Your task to perform on an android device: change alarm snooze length Image 0: 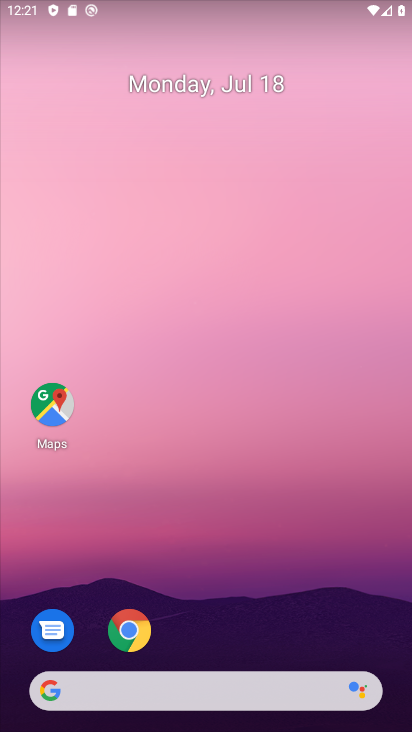
Step 0: click (182, 173)
Your task to perform on an android device: change alarm snooze length Image 1: 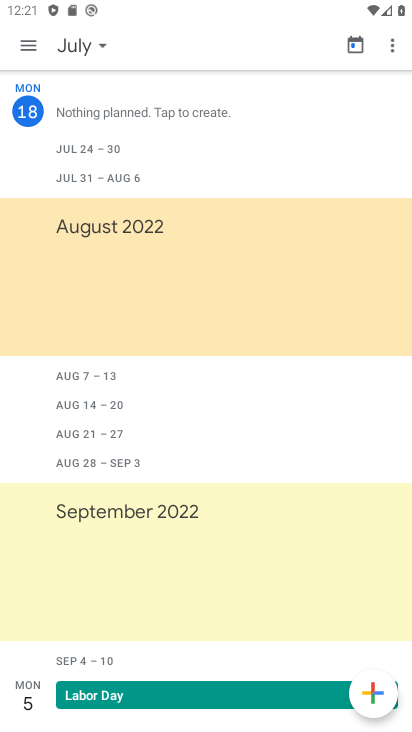
Step 1: press back button
Your task to perform on an android device: change alarm snooze length Image 2: 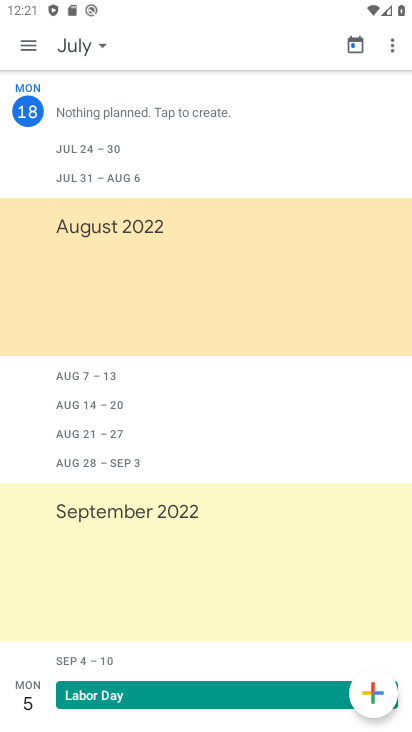
Step 2: press back button
Your task to perform on an android device: change alarm snooze length Image 3: 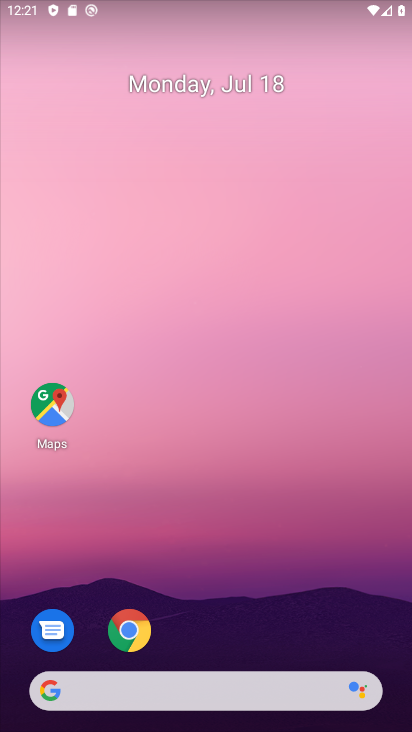
Step 3: drag from (281, 659) to (19, 97)
Your task to perform on an android device: change alarm snooze length Image 4: 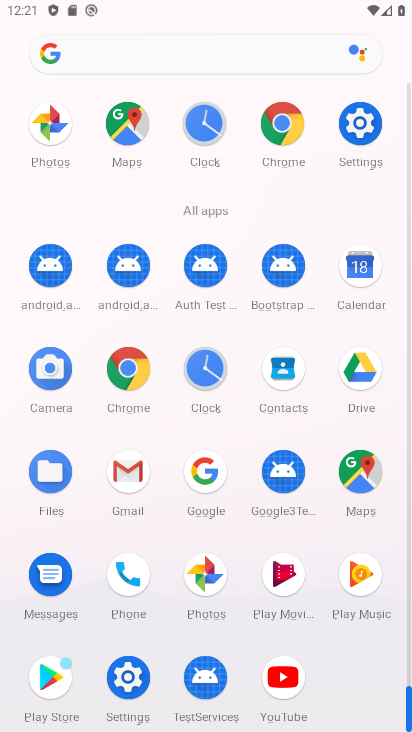
Step 4: click (206, 363)
Your task to perform on an android device: change alarm snooze length Image 5: 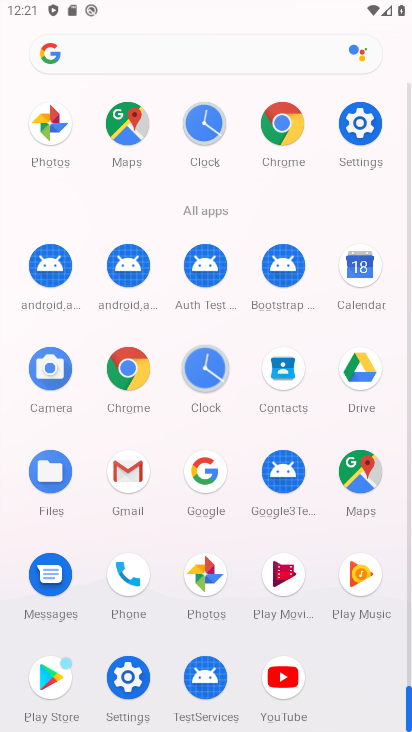
Step 5: click (207, 362)
Your task to perform on an android device: change alarm snooze length Image 6: 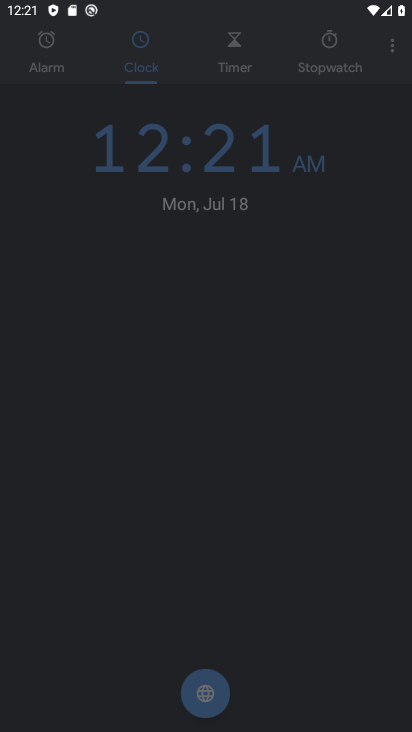
Step 6: click (207, 362)
Your task to perform on an android device: change alarm snooze length Image 7: 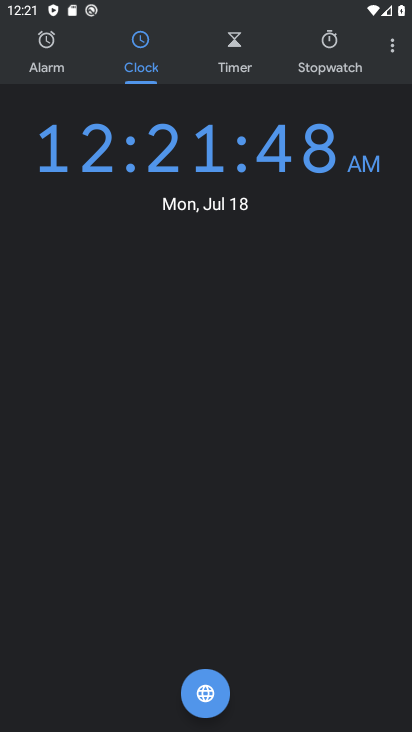
Step 7: click (213, 362)
Your task to perform on an android device: change alarm snooze length Image 8: 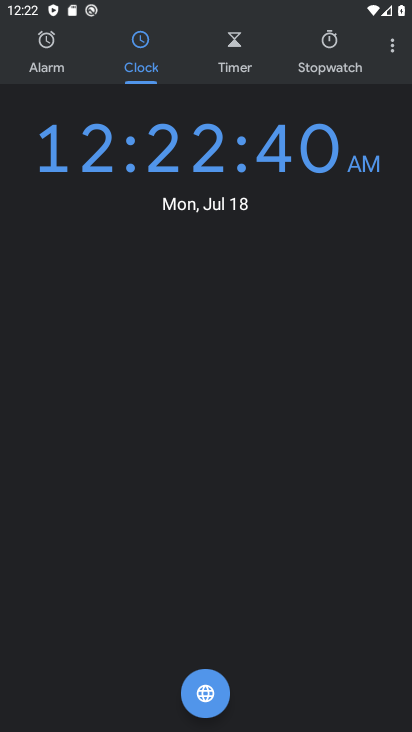
Step 8: click (382, 45)
Your task to perform on an android device: change alarm snooze length Image 9: 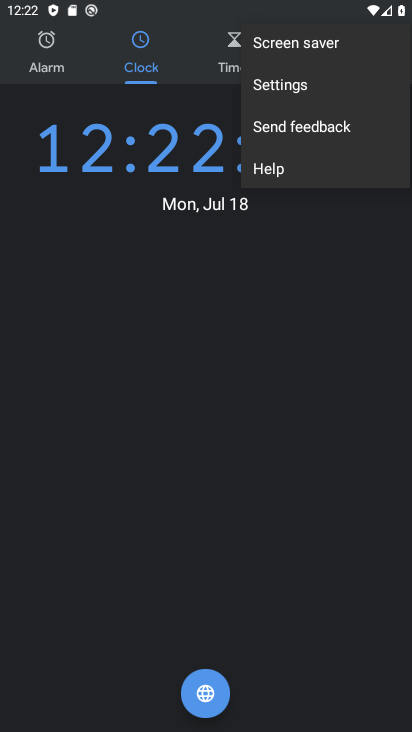
Step 9: click (388, 53)
Your task to perform on an android device: change alarm snooze length Image 10: 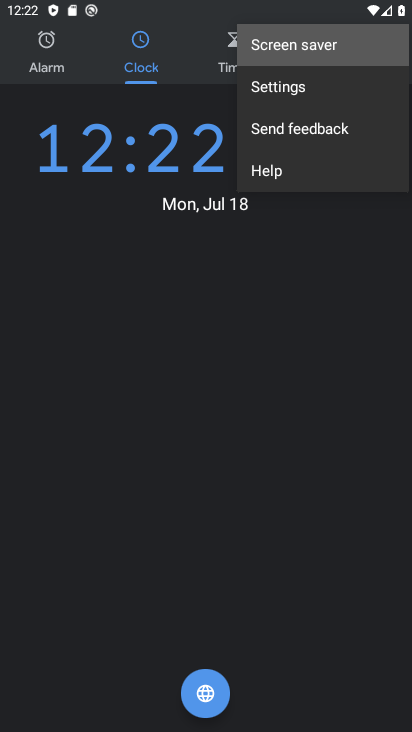
Step 10: click (388, 53)
Your task to perform on an android device: change alarm snooze length Image 11: 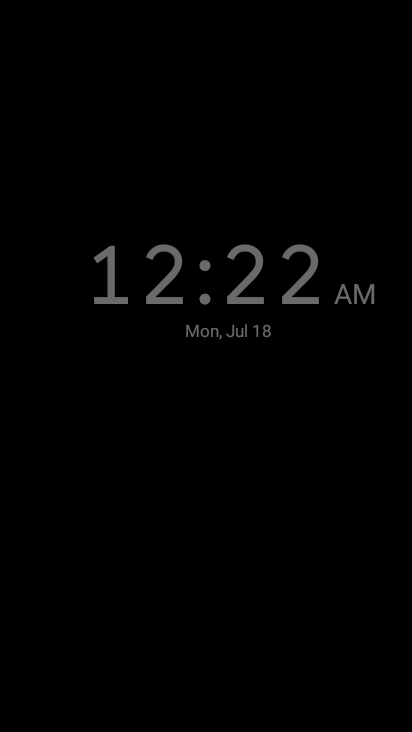
Step 11: click (293, 90)
Your task to perform on an android device: change alarm snooze length Image 12: 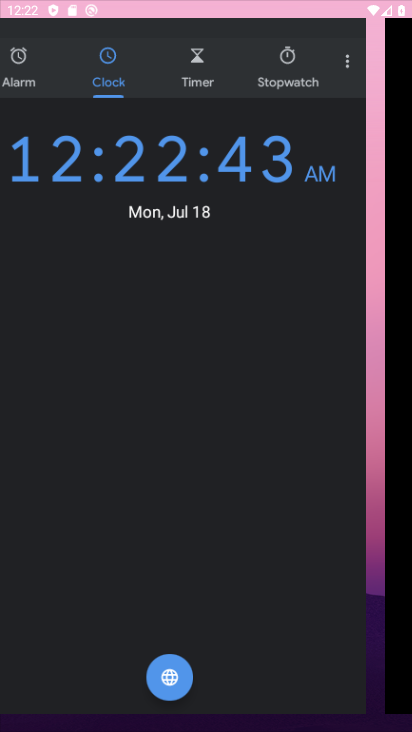
Step 12: click (294, 92)
Your task to perform on an android device: change alarm snooze length Image 13: 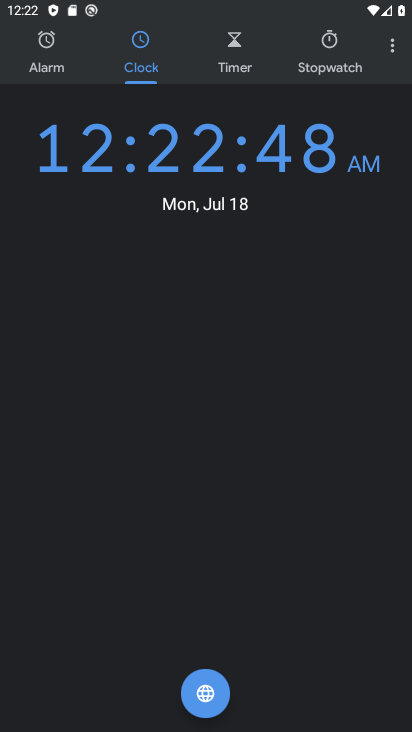
Step 13: click (404, 64)
Your task to perform on an android device: change alarm snooze length Image 14: 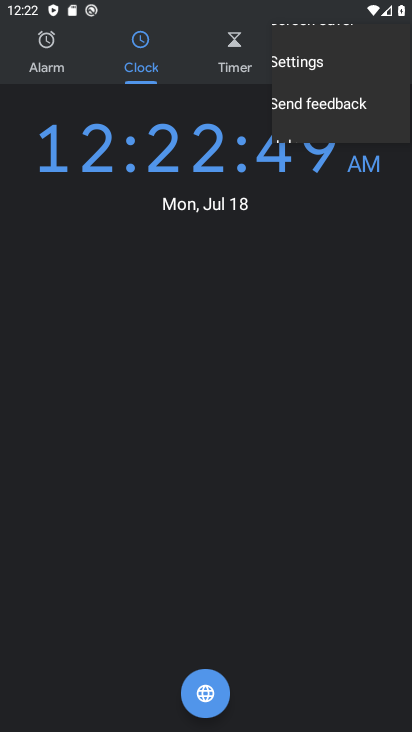
Step 14: click (392, 48)
Your task to perform on an android device: change alarm snooze length Image 15: 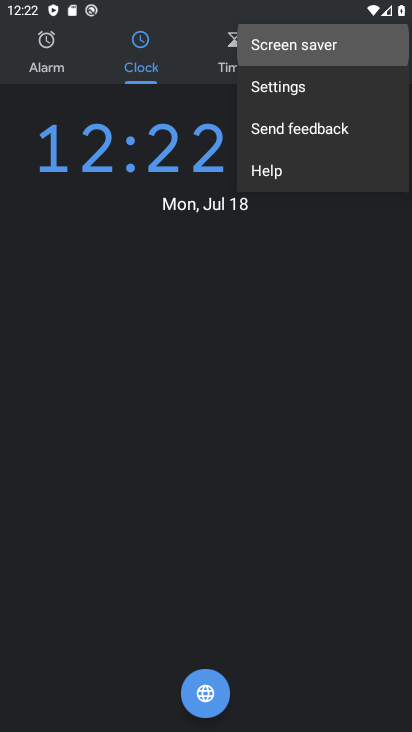
Step 15: click (395, 50)
Your task to perform on an android device: change alarm snooze length Image 16: 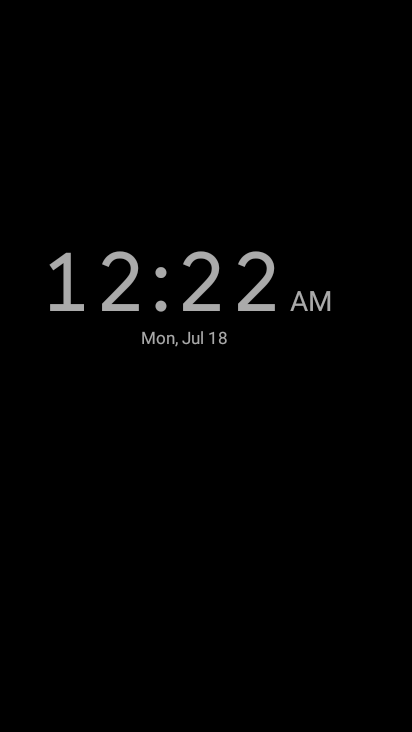
Step 16: press back button
Your task to perform on an android device: change alarm snooze length Image 17: 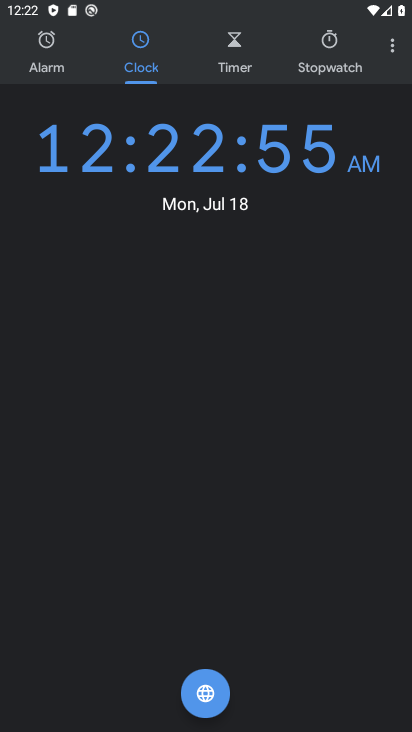
Step 17: click (395, 44)
Your task to perform on an android device: change alarm snooze length Image 18: 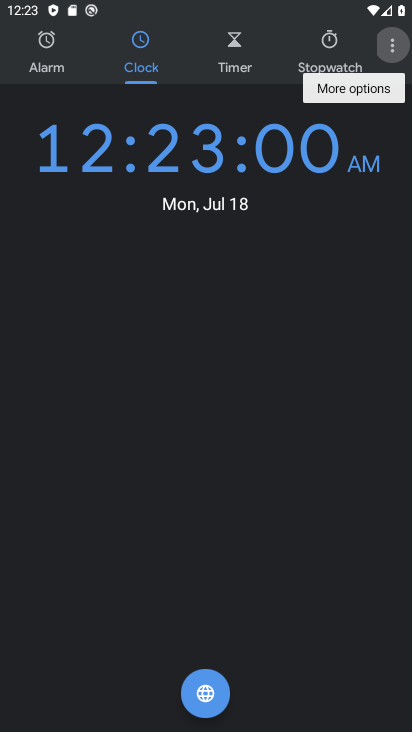
Step 18: click (392, 49)
Your task to perform on an android device: change alarm snooze length Image 19: 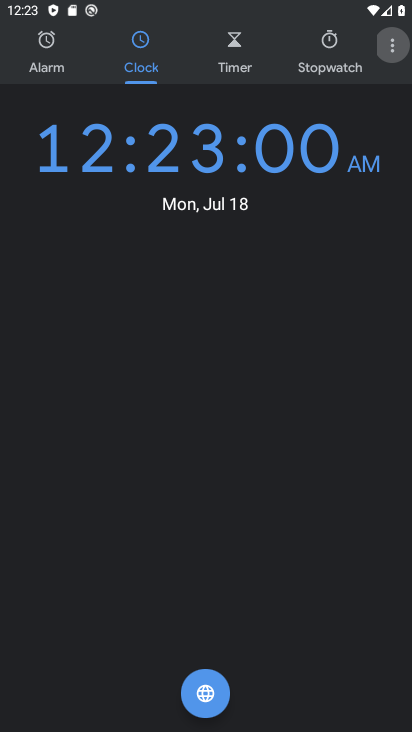
Step 19: click (396, 45)
Your task to perform on an android device: change alarm snooze length Image 20: 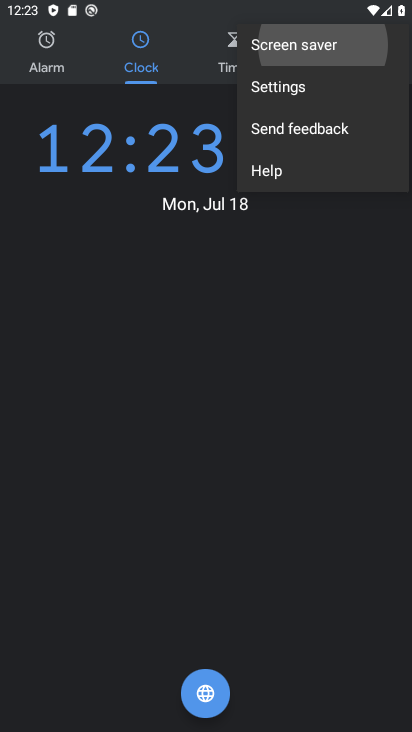
Step 20: click (397, 47)
Your task to perform on an android device: change alarm snooze length Image 21: 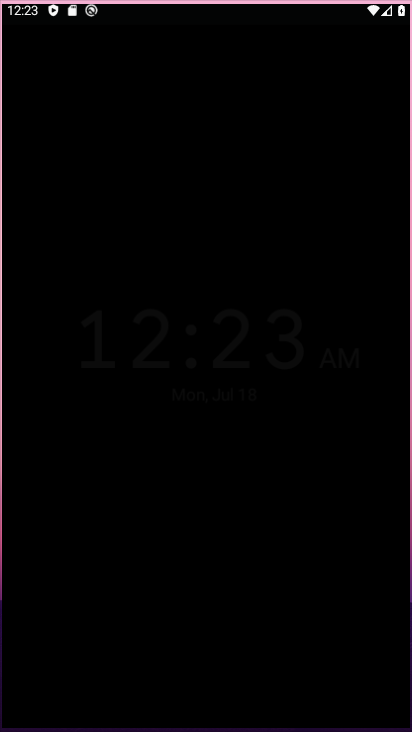
Step 21: click (293, 92)
Your task to perform on an android device: change alarm snooze length Image 22: 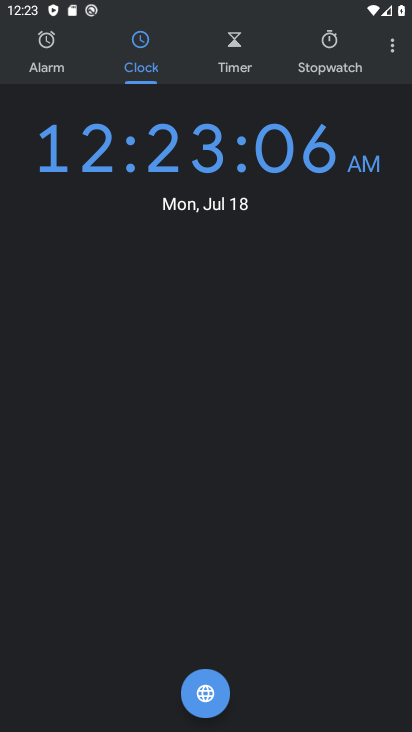
Step 22: click (386, 48)
Your task to perform on an android device: change alarm snooze length Image 23: 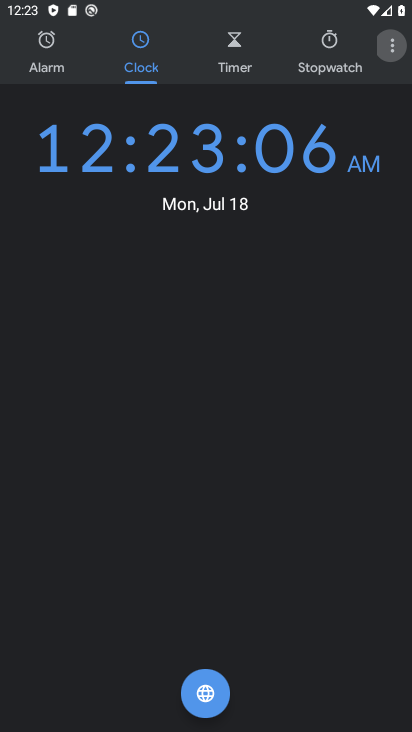
Step 23: click (406, 54)
Your task to perform on an android device: change alarm snooze length Image 24: 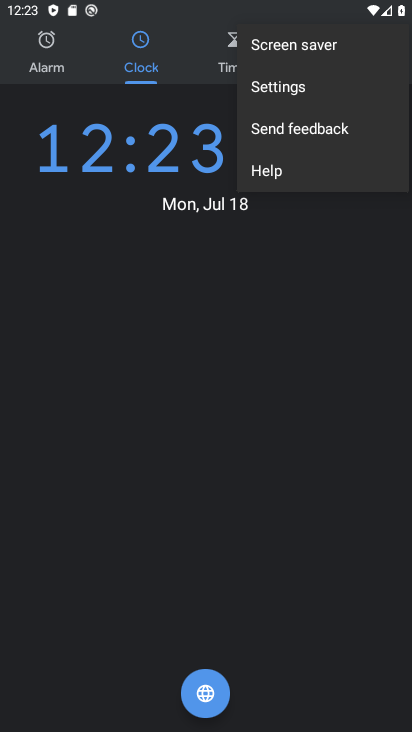
Step 24: click (274, 86)
Your task to perform on an android device: change alarm snooze length Image 25: 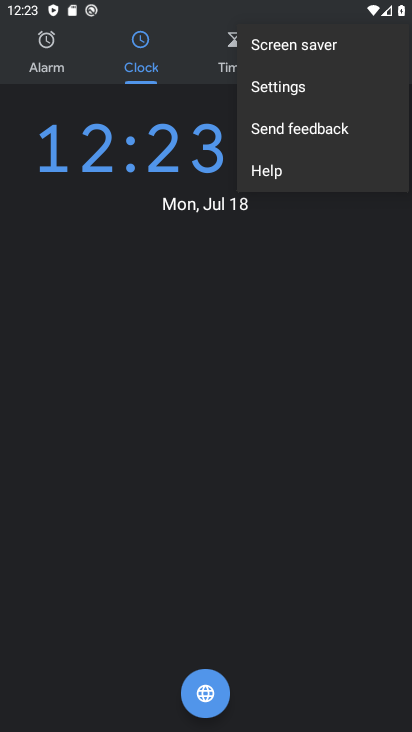
Step 25: click (274, 86)
Your task to perform on an android device: change alarm snooze length Image 26: 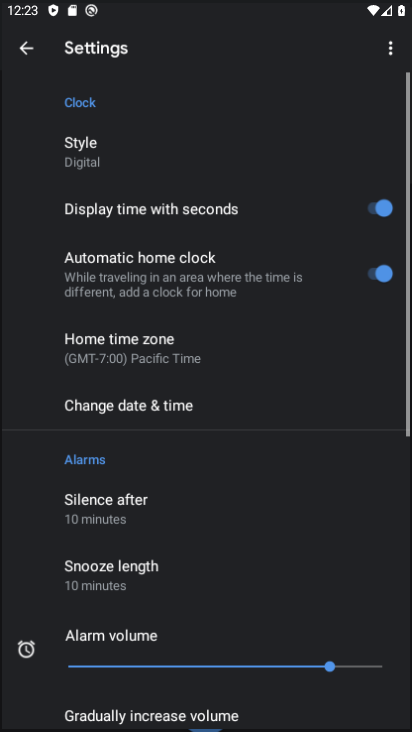
Step 26: click (278, 80)
Your task to perform on an android device: change alarm snooze length Image 27: 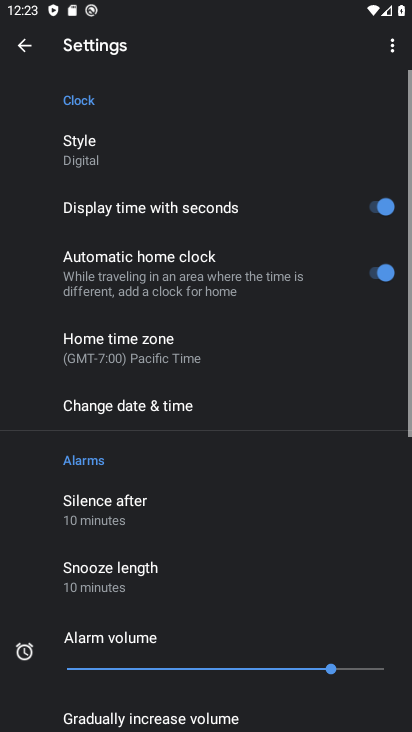
Step 27: click (279, 82)
Your task to perform on an android device: change alarm snooze length Image 28: 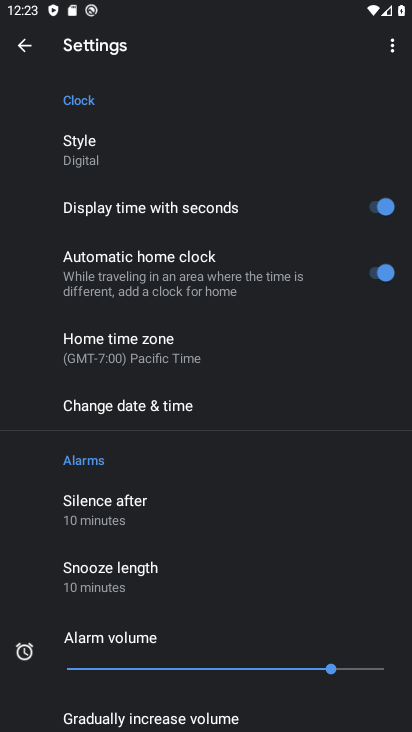
Step 28: click (125, 581)
Your task to perform on an android device: change alarm snooze length Image 29: 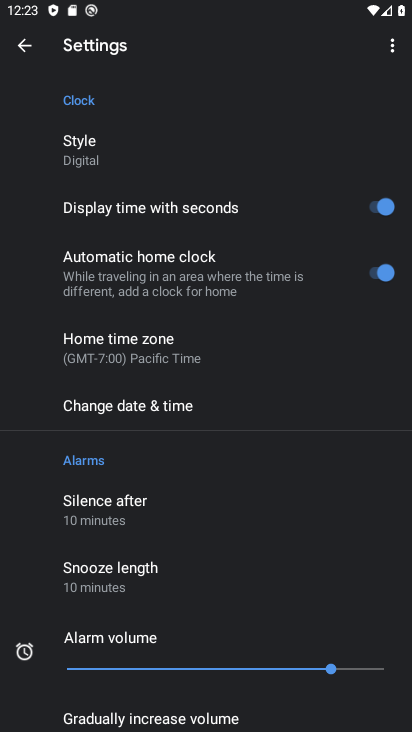
Step 29: click (125, 581)
Your task to perform on an android device: change alarm snooze length Image 30: 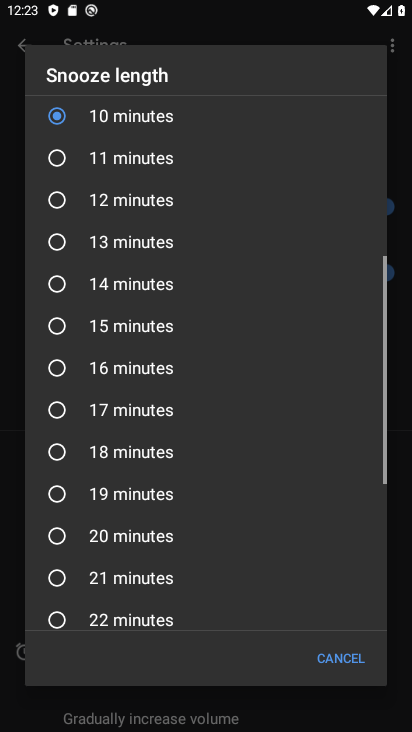
Step 30: click (126, 580)
Your task to perform on an android device: change alarm snooze length Image 31: 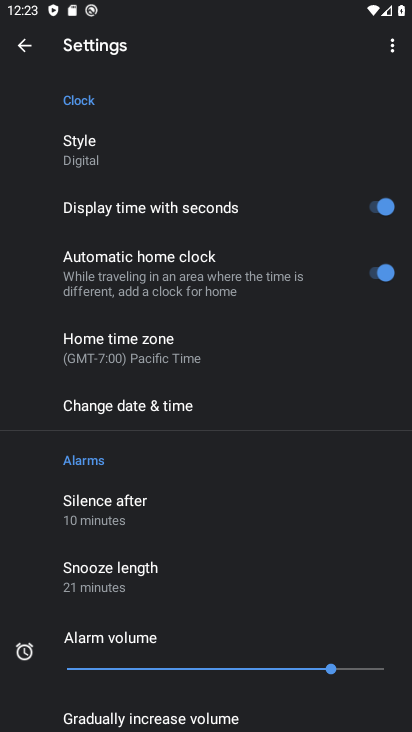
Step 31: task complete